Your task to perform on an android device: delete location history Image 0: 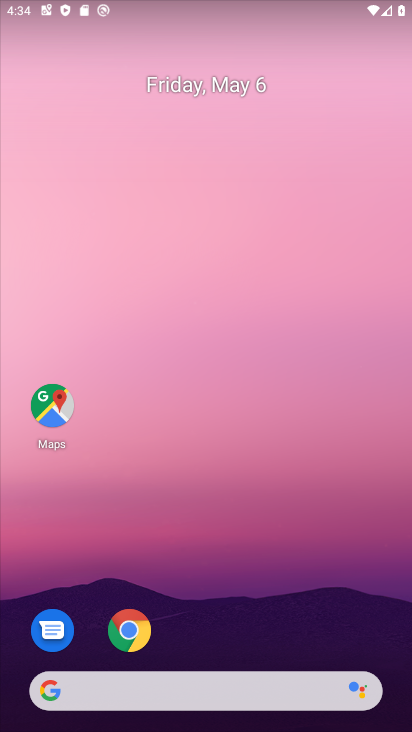
Step 0: drag from (258, 623) to (317, 268)
Your task to perform on an android device: delete location history Image 1: 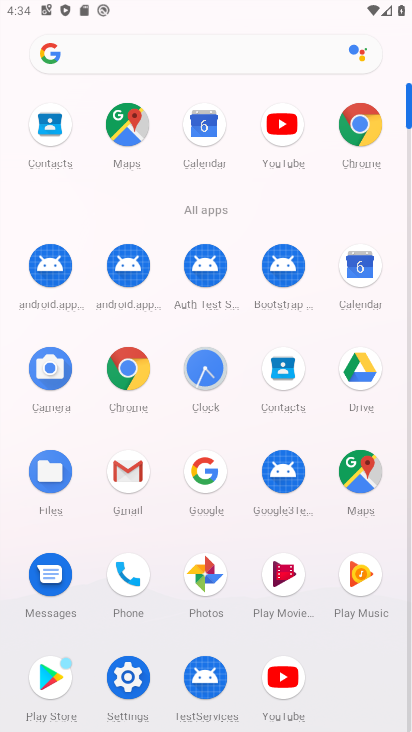
Step 1: click (349, 470)
Your task to perform on an android device: delete location history Image 2: 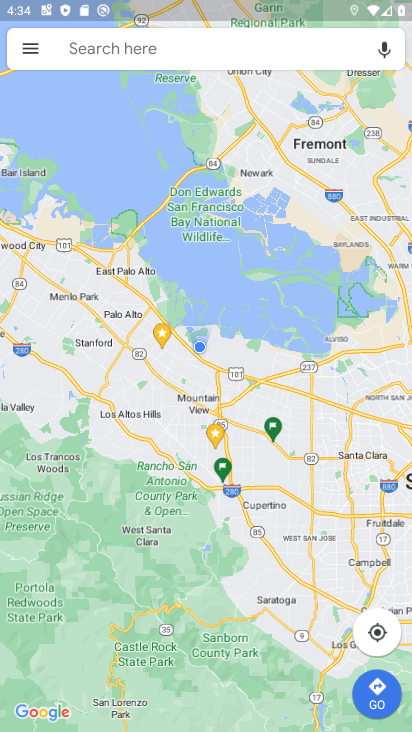
Step 2: click (31, 54)
Your task to perform on an android device: delete location history Image 3: 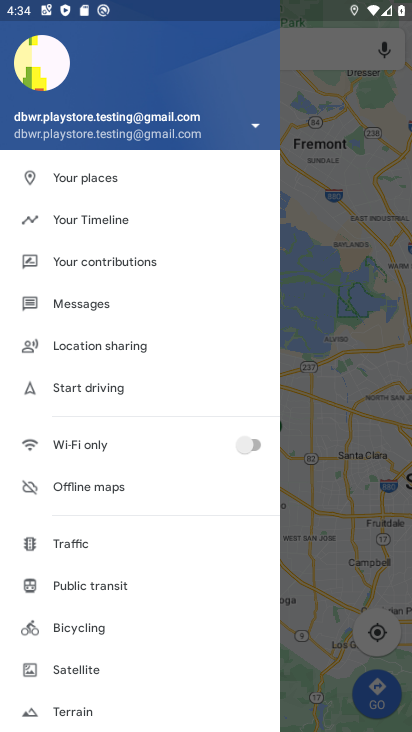
Step 3: click (96, 217)
Your task to perform on an android device: delete location history Image 4: 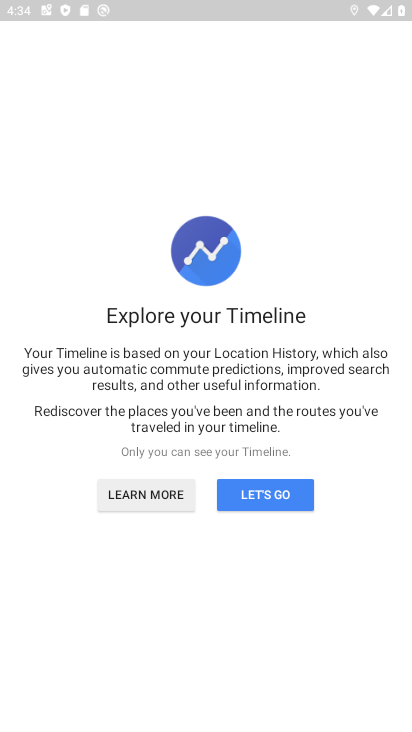
Step 4: click (255, 486)
Your task to perform on an android device: delete location history Image 5: 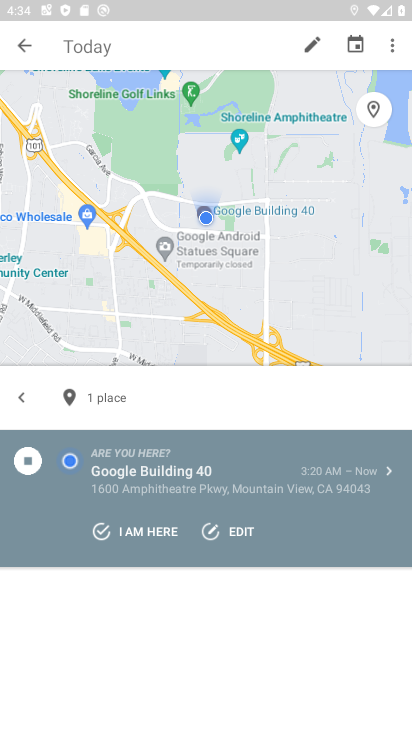
Step 5: click (383, 52)
Your task to perform on an android device: delete location history Image 6: 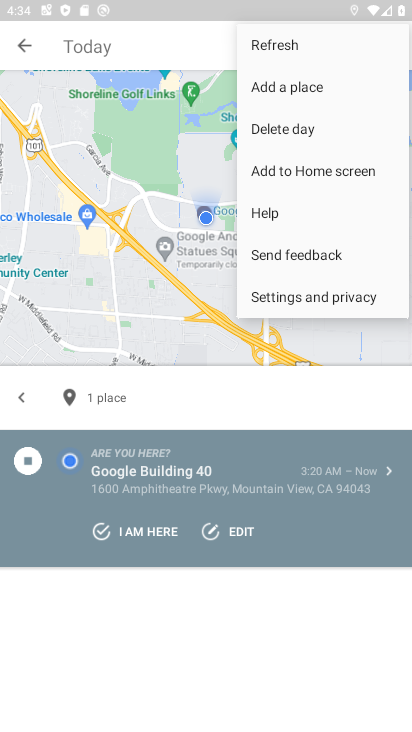
Step 6: click (315, 291)
Your task to perform on an android device: delete location history Image 7: 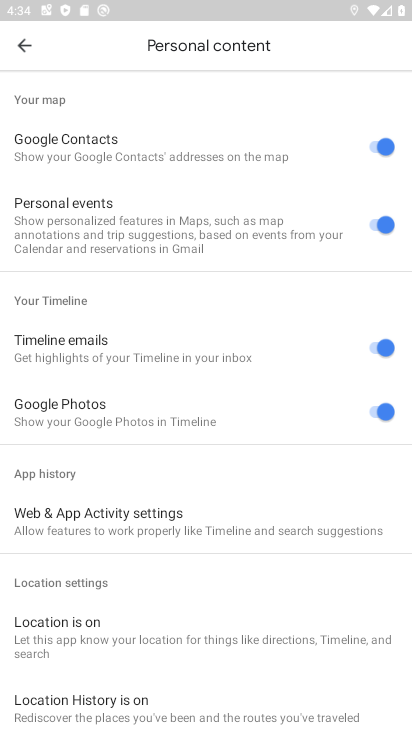
Step 7: drag from (117, 690) to (185, 449)
Your task to perform on an android device: delete location history Image 8: 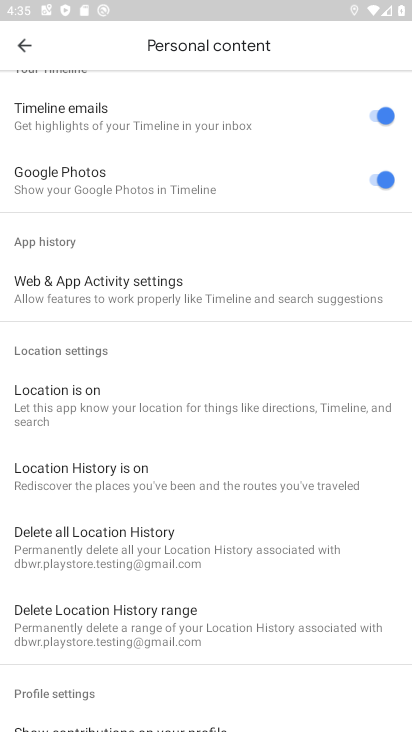
Step 8: click (130, 555)
Your task to perform on an android device: delete location history Image 9: 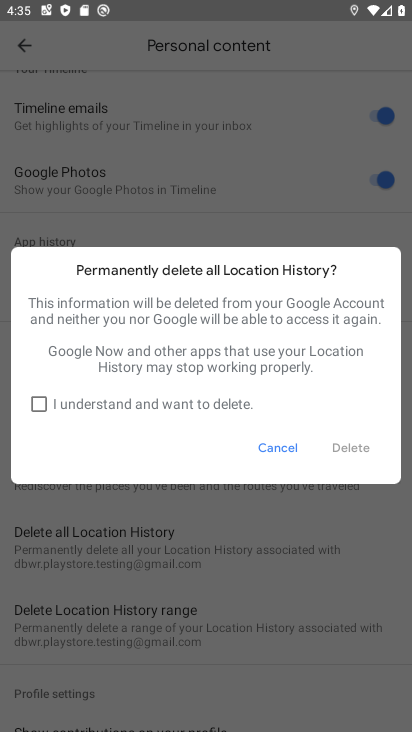
Step 9: click (187, 410)
Your task to perform on an android device: delete location history Image 10: 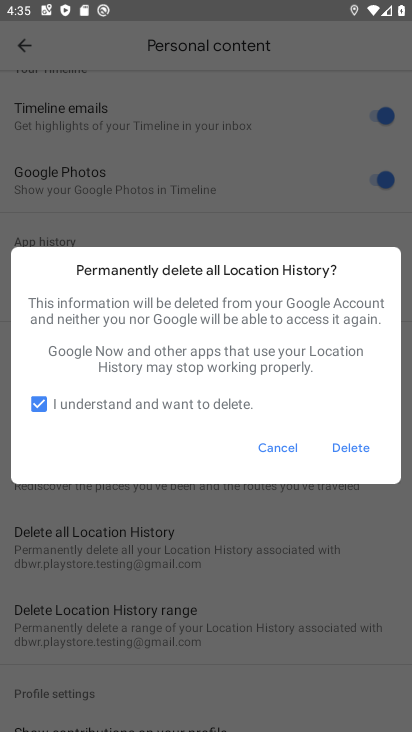
Step 10: click (359, 455)
Your task to perform on an android device: delete location history Image 11: 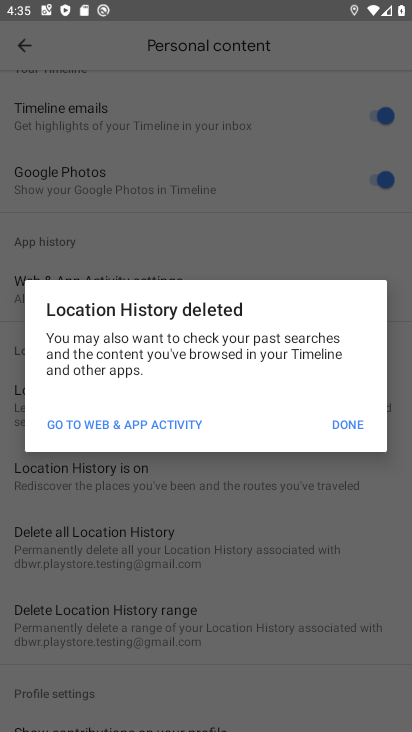
Step 11: click (331, 421)
Your task to perform on an android device: delete location history Image 12: 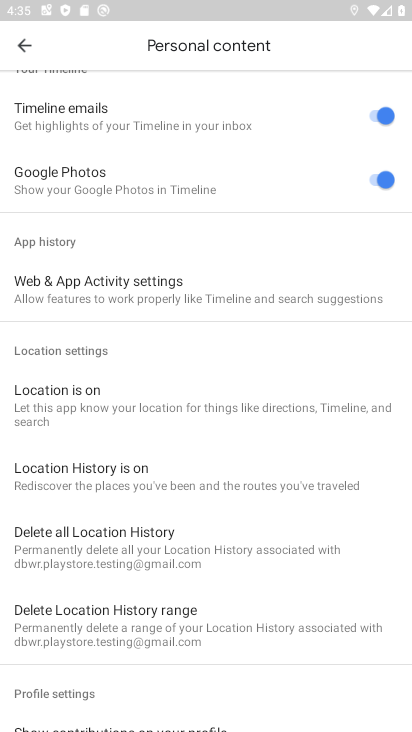
Step 12: task complete